Your task to perform on an android device: turn on improve location accuracy Image 0: 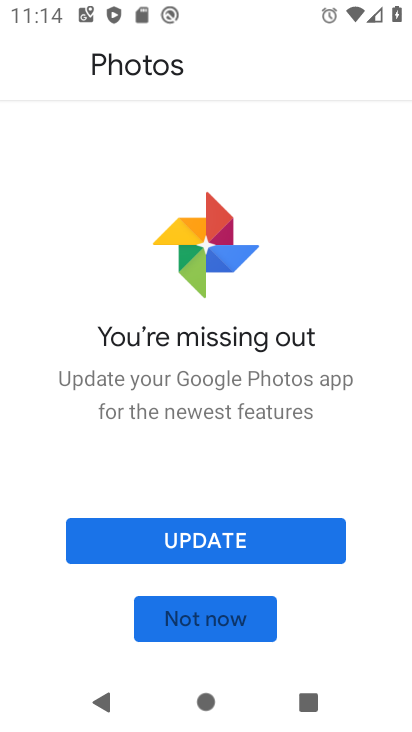
Step 0: press home button
Your task to perform on an android device: turn on improve location accuracy Image 1: 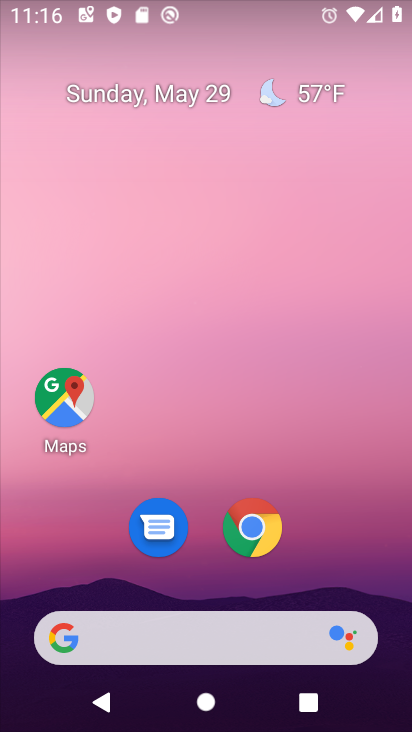
Step 1: drag from (206, 593) to (255, 1)
Your task to perform on an android device: turn on improve location accuracy Image 2: 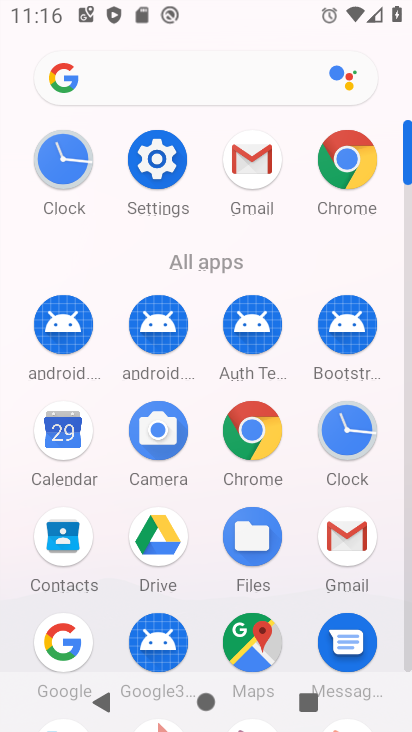
Step 2: click (150, 159)
Your task to perform on an android device: turn on improve location accuracy Image 3: 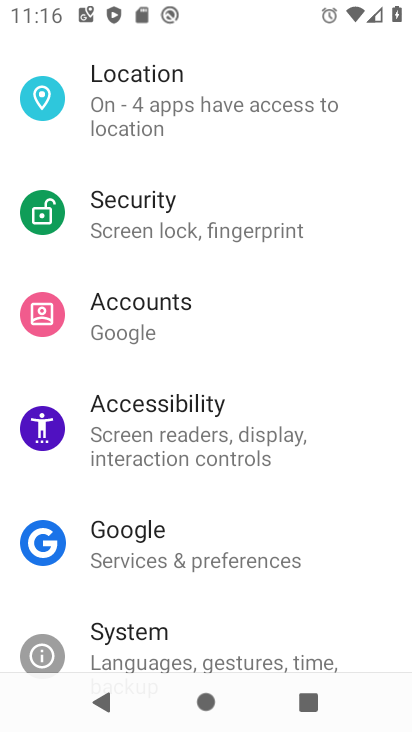
Step 3: click (116, 110)
Your task to perform on an android device: turn on improve location accuracy Image 4: 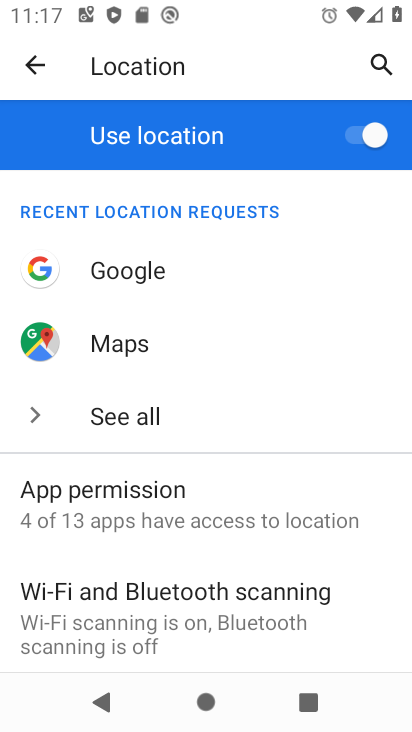
Step 4: drag from (175, 527) to (189, 162)
Your task to perform on an android device: turn on improve location accuracy Image 5: 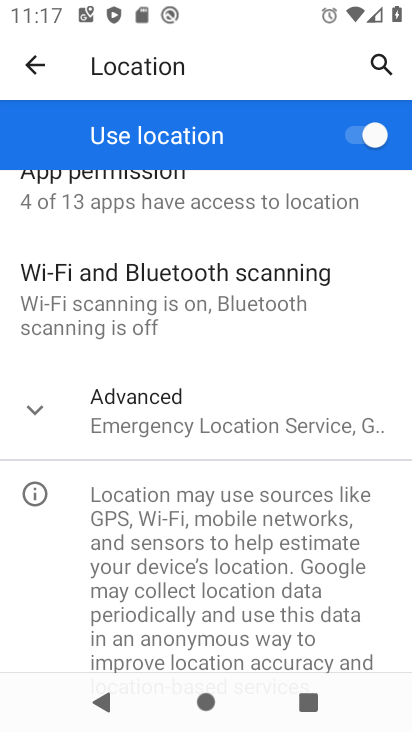
Step 5: click (137, 392)
Your task to perform on an android device: turn on improve location accuracy Image 6: 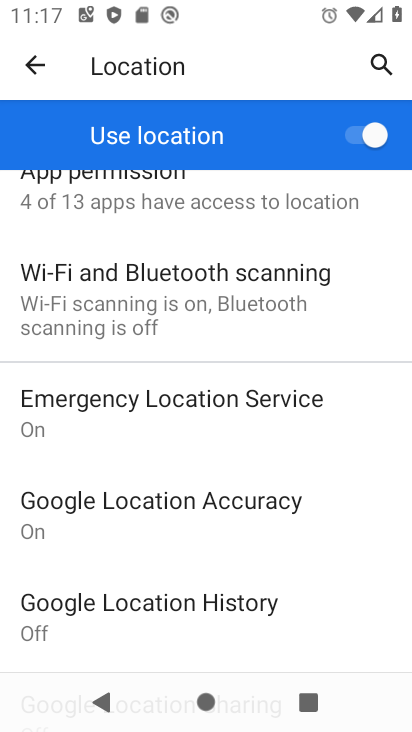
Step 6: click (222, 496)
Your task to perform on an android device: turn on improve location accuracy Image 7: 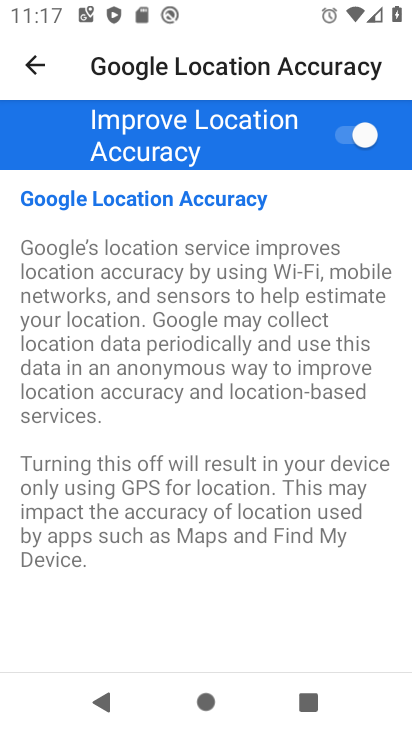
Step 7: task complete